Your task to perform on an android device: Open Google Image 0: 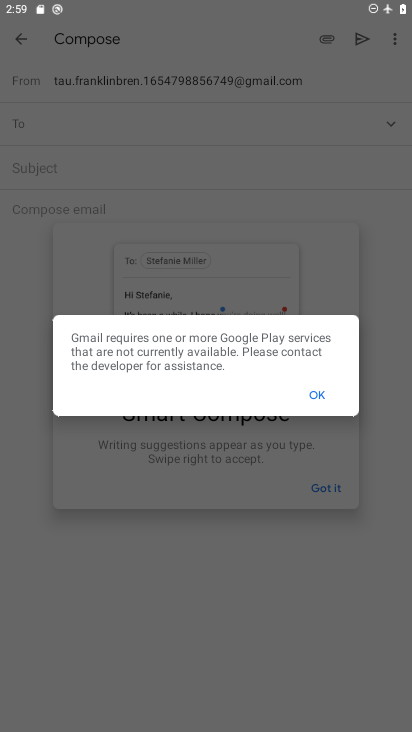
Step 0: press home button
Your task to perform on an android device: Open Google Image 1: 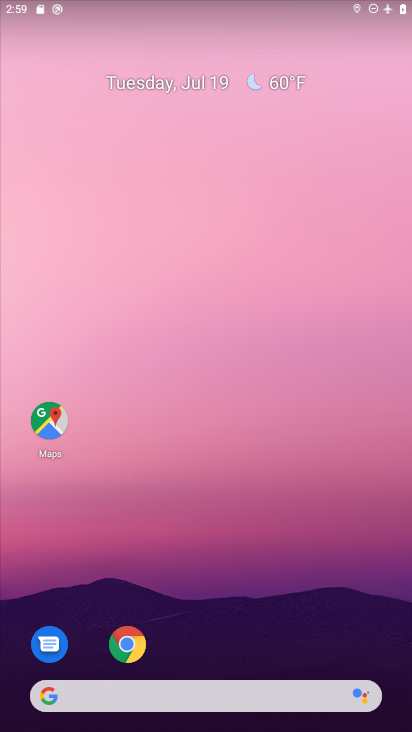
Step 1: drag from (185, 664) to (155, 169)
Your task to perform on an android device: Open Google Image 2: 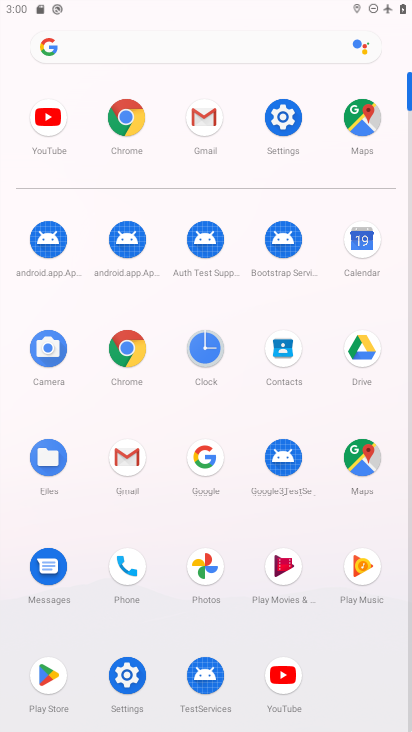
Step 2: click (197, 468)
Your task to perform on an android device: Open Google Image 3: 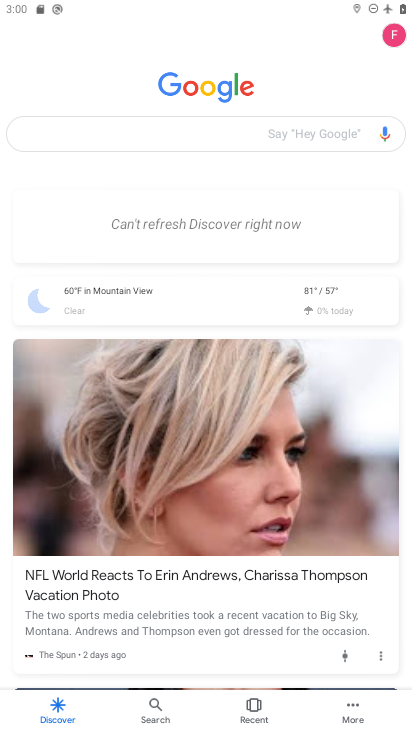
Step 3: click (201, 125)
Your task to perform on an android device: Open Google Image 4: 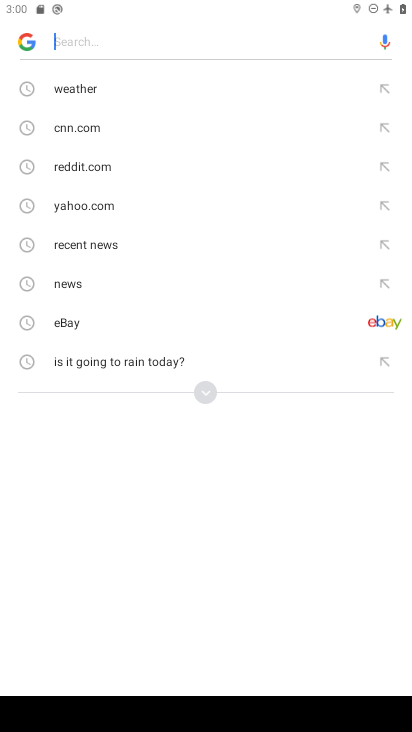
Step 4: task complete